Your task to perform on an android device: allow cookies in the chrome app Image 0: 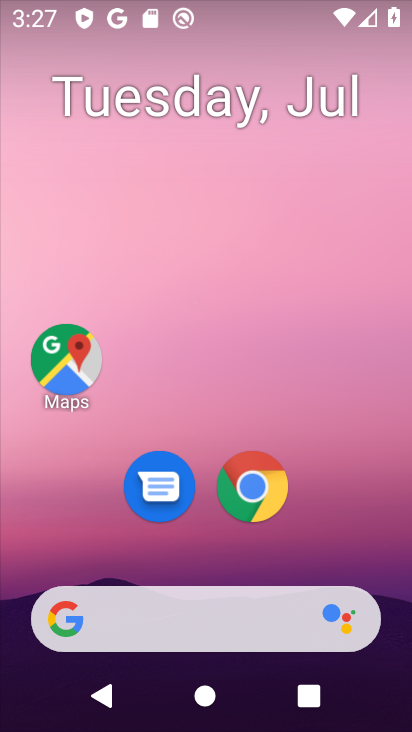
Step 0: click (273, 502)
Your task to perform on an android device: allow cookies in the chrome app Image 1: 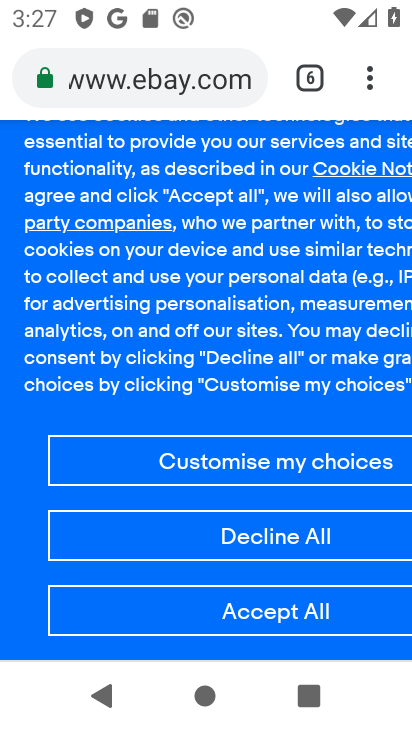
Step 1: drag from (364, 69) to (119, 568)
Your task to perform on an android device: allow cookies in the chrome app Image 2: 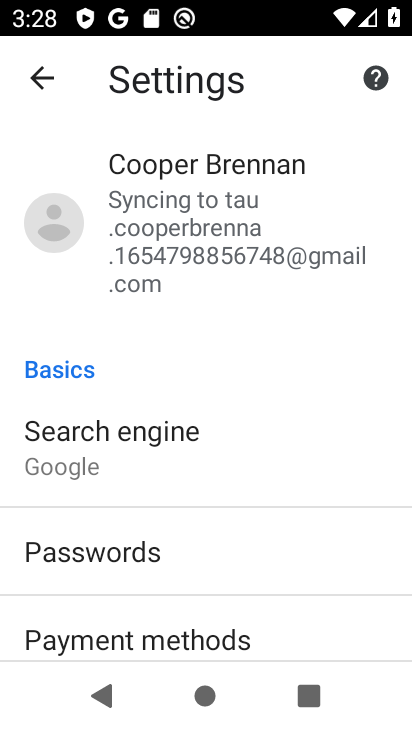
Step 2: drag from (117, 577) to (261, 61)
Your task to perform on an android device: allow cookies in the chrome app Image 3: 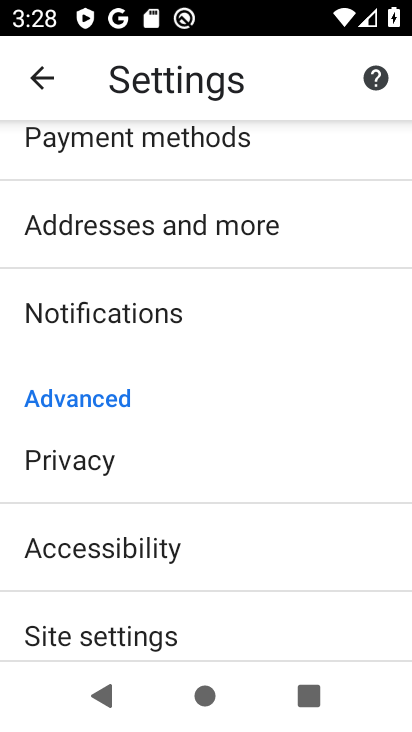
Step 3: click (105, 626)
Your task to perform on an android device: allow cookies in the chrome app Image 4: 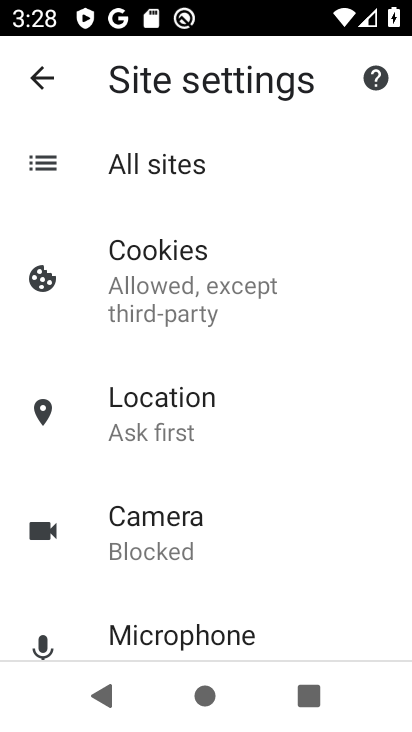
Step 4: click (222, 270)
Your task to perform on an android device: allow cookies in the chrome app Image 5: 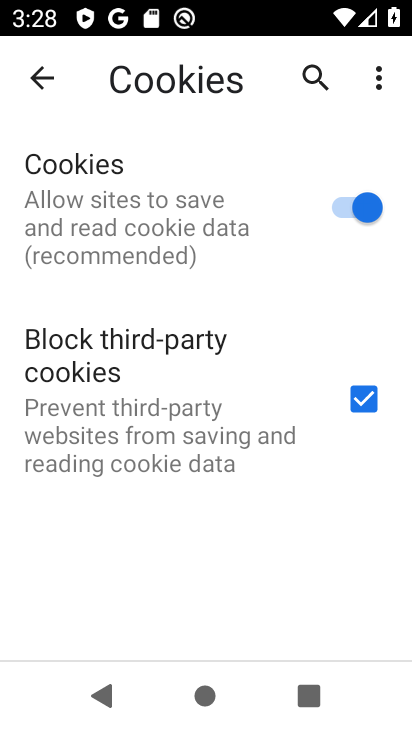
Step 5: task complete